Your task to perform on an android device: change keyboard looks Image 0: 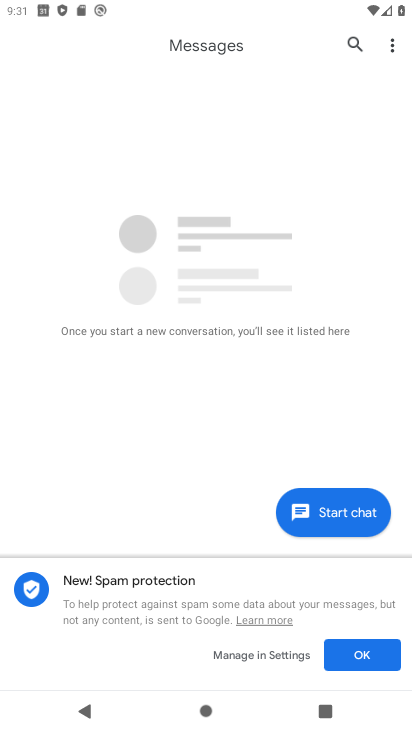
Step 0: press home button
Your task to perform on an android device: change keyboard looks Image 1: 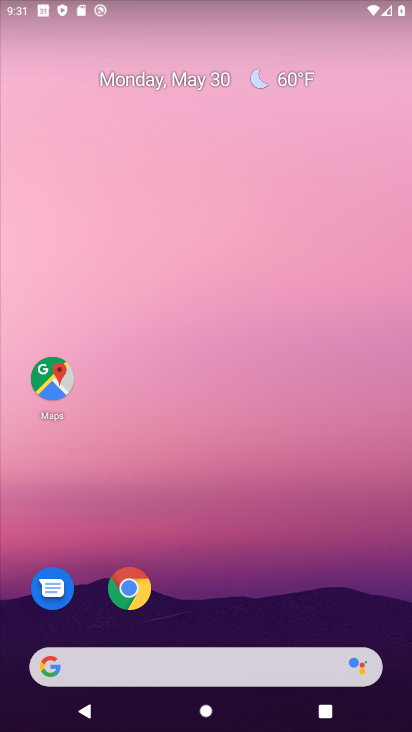
Step 1: drag from (189, 614) to (242, 397)
Your task to perform on an android device: change keyboard looks Image 2: 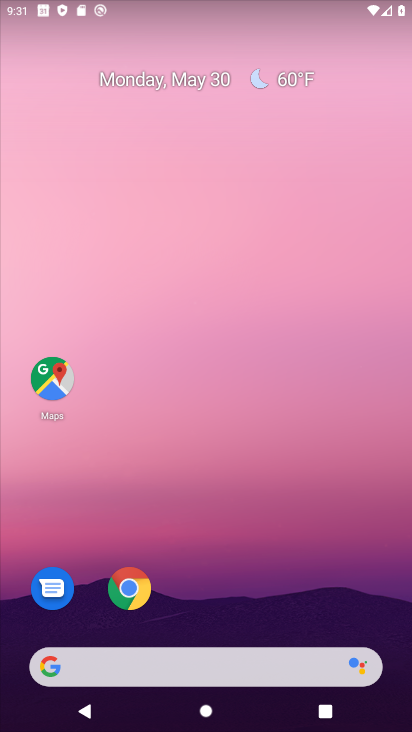
Step 2: drag from (211, 621) to (402, 69)
Your task to perform on an android device: change keyboard looks Image 3: 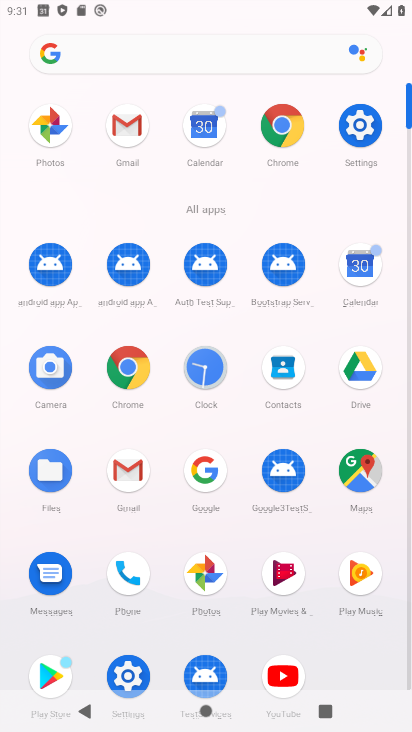
Step 3: click (124, 673)
Your task to perform on an android device: change keyboard looks Image 4: 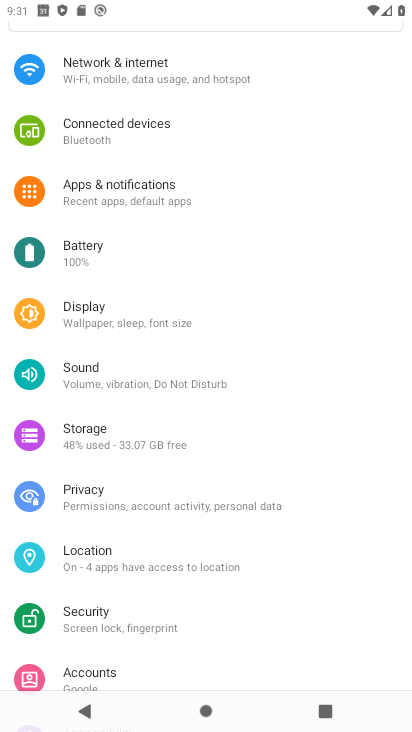
Step 4: drag from (128, 561) to (127, 238)
Your task to perform on an android device: change keyboard looks Image 5: 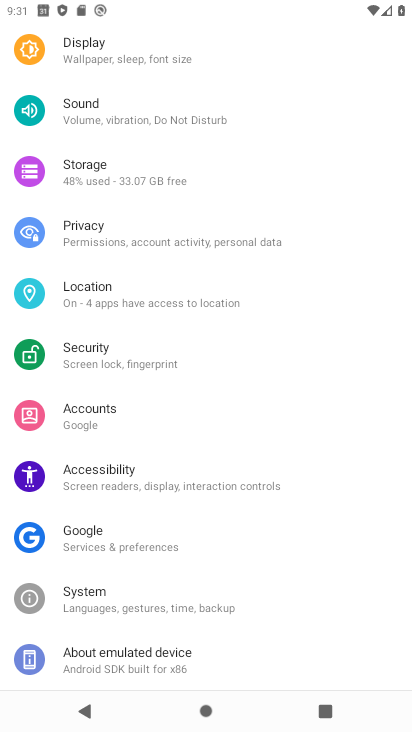
Step 5: click (128, 607)
Your task to perform on an android device: change keyboard looks Image 6: 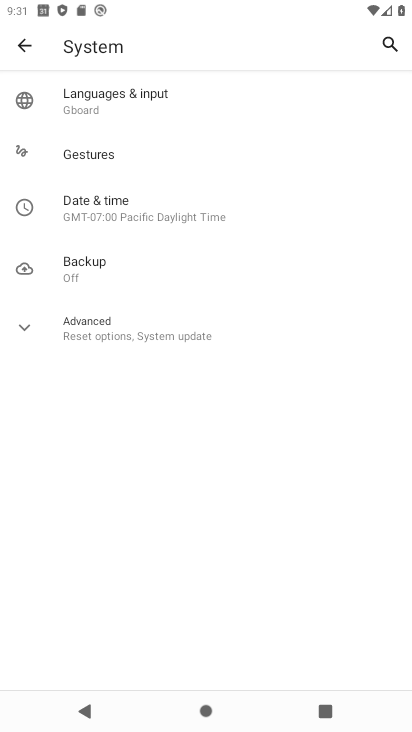
Step 6: click (120, 116)
Your task to perform on an android device: change keyboard looks Image 7: 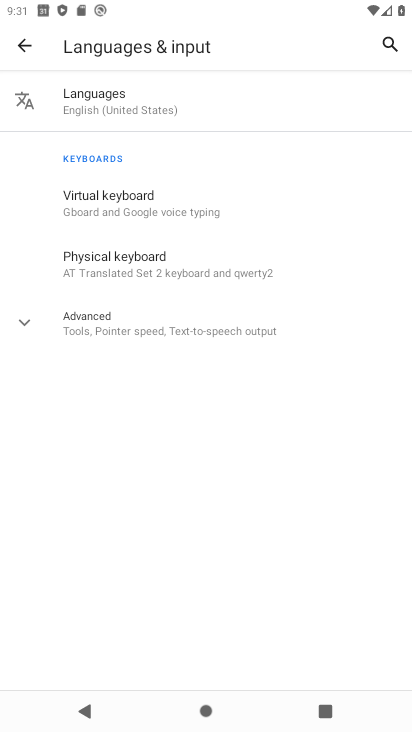
Step 7: click (129, 207)
Your task to perform on an android device: change keyboard looks Image 8: 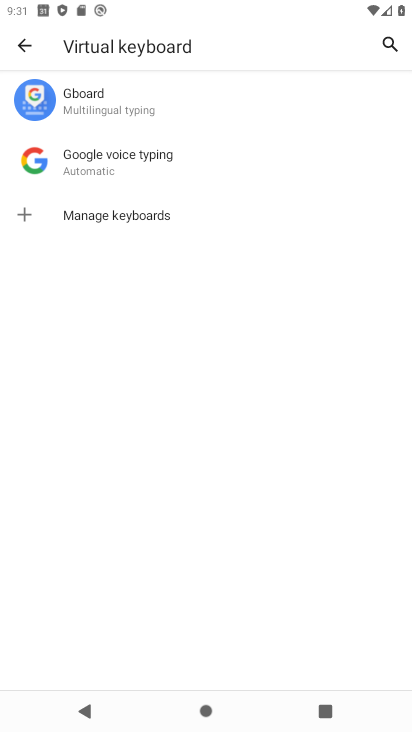
Step 8: click (134, 107)
Your task to perform on an android device: change keyboard looks Image 9: 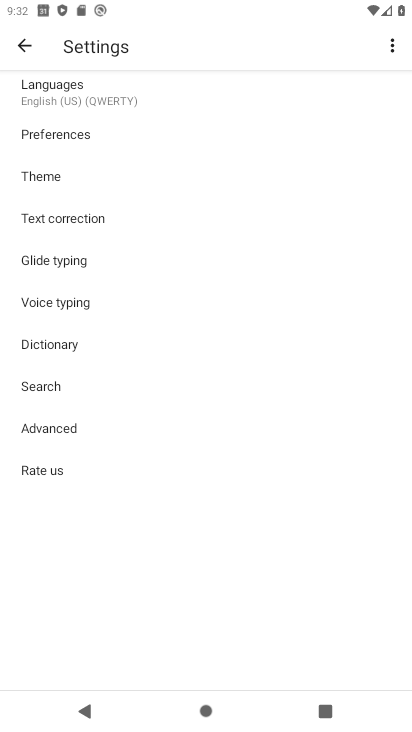
Step 9: click (72, 181)
Your task to perform on an android device: change keyboard looks Image 10: 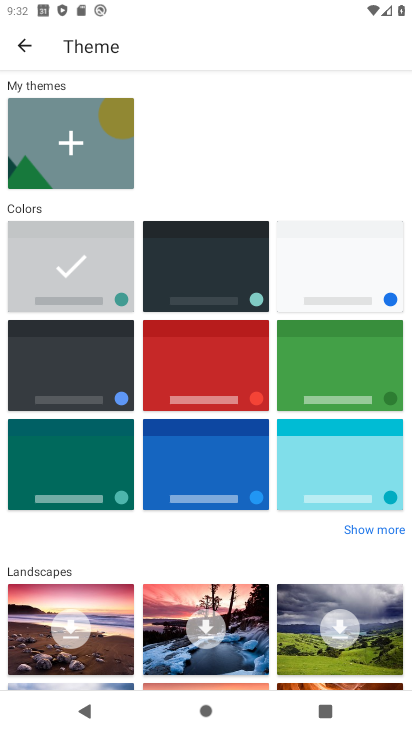
Step 10: click (192, 277)
Your task to perform on an android device: change keyboard looks Image 11: 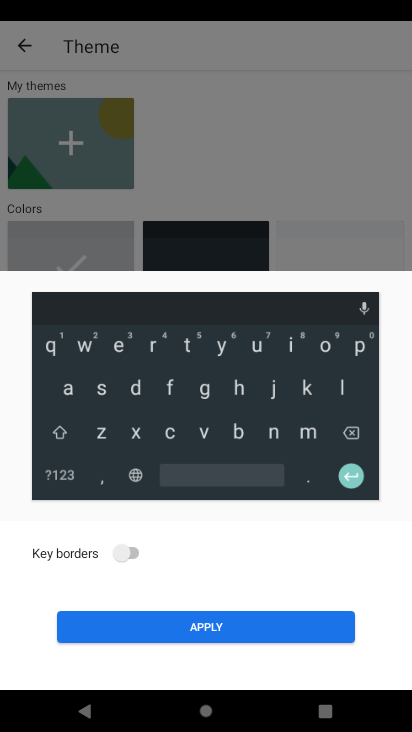
Step 11: click (130, 541)
Your task to perform on an android device: change keyboard looks Image 12: 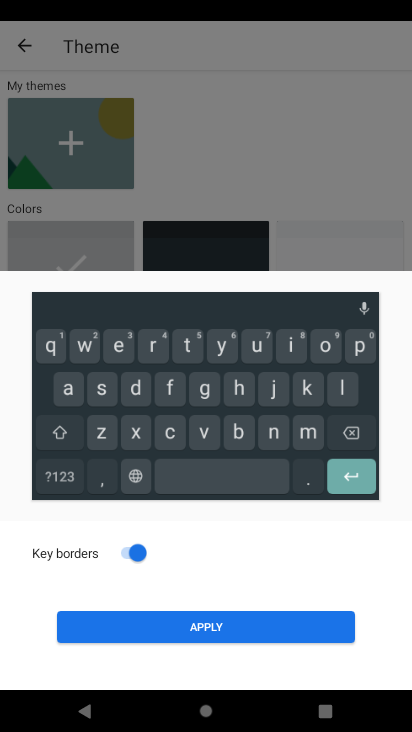
Step 12: click (240, 632)
Your task to perform on an android device: change keyboard looks Image 13: 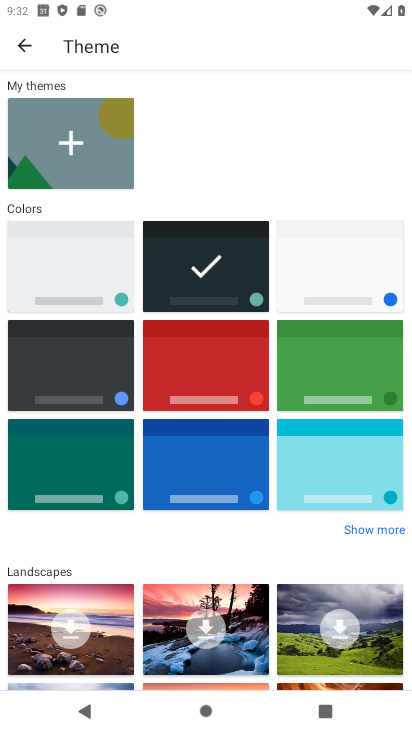
Step 13: task complete